Your task to perform on an android device: delete a single message in the gmail app Image 0: 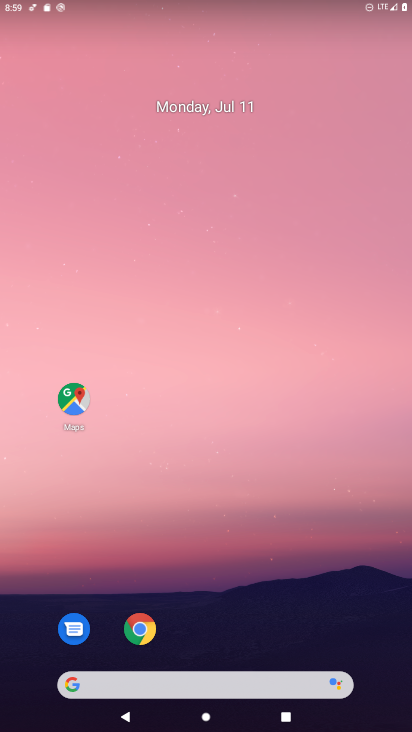
Step 0: drag from (190, 639) to (283, 18)
Your task to perform on an android device: delete a single message in the gmail app Image 1: 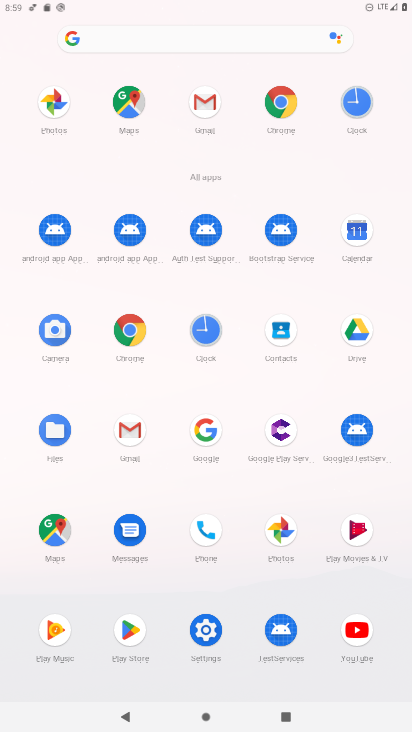
Step 1: click (201, 103)
Your task to perform on an android device: delete a single message in the gmail app Image 2: 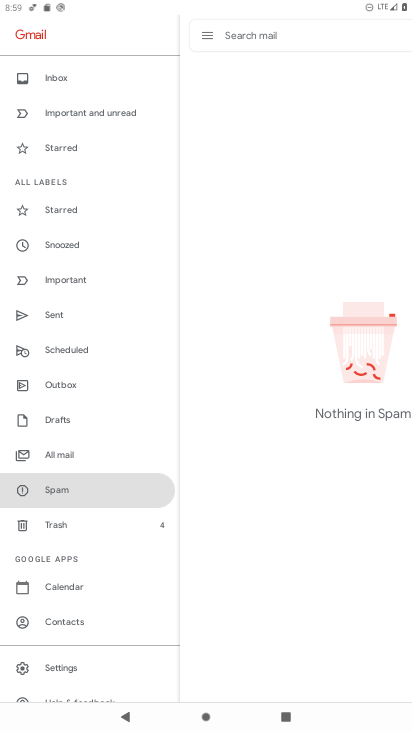
Step 2: click (47, 78)
Your task to perform on an android device: delete a single message in the gmail app Image 3: 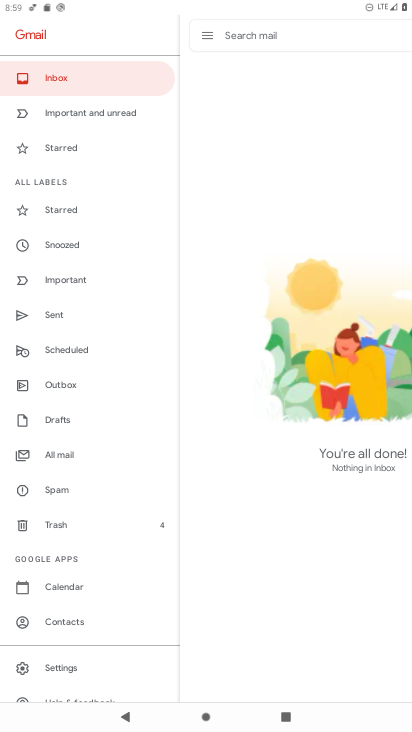
Step 3: click (80, 456)
Your task to perform on an android device: delete a single message in the gmail app Image 4: 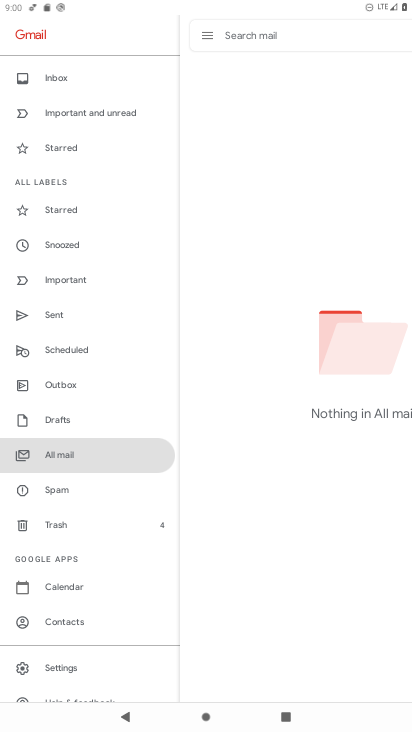
Step 4: task complete